Your task to perform on an android device: turn pop-ups on in chrome Image 0: 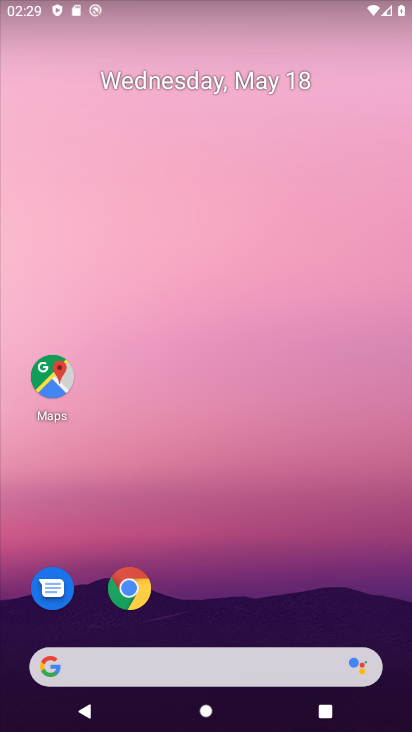
Step 0: press home button
Your task to perform on an android device: turn pop-ups on in chrome Image 1: 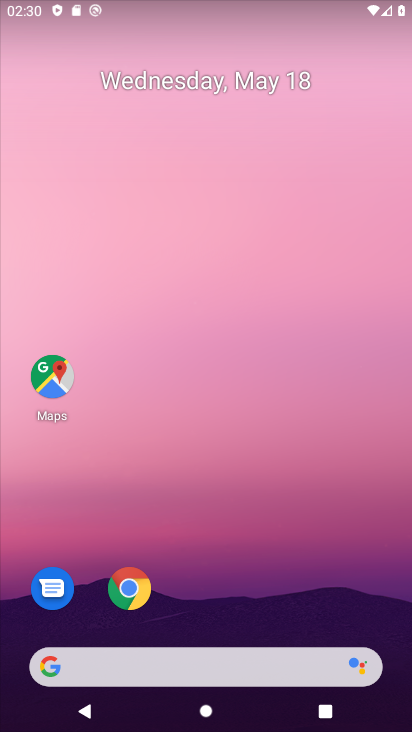
Step 1: click (119, 585)
Your task to perform on an android device: turn pop-ups on in chrome Image 2: 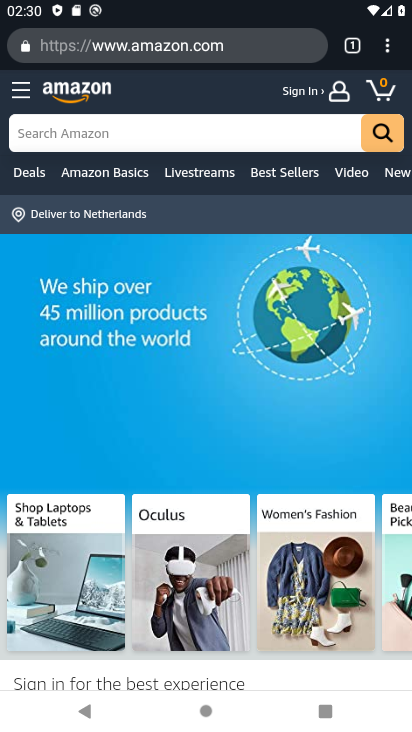
Step 2: click (385, 45)
Your task to perform on an android device: turn pop-ups on in chrome Image 3: 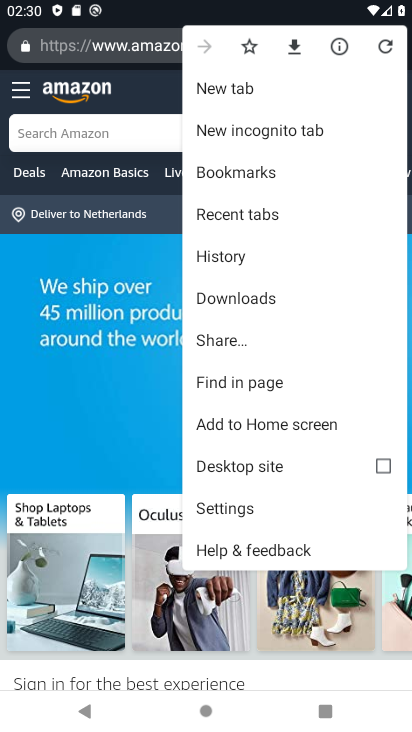
Step 3: click (209, 514)
Your task to perform on an android device: turn pop-ups on in chrome Image 4: 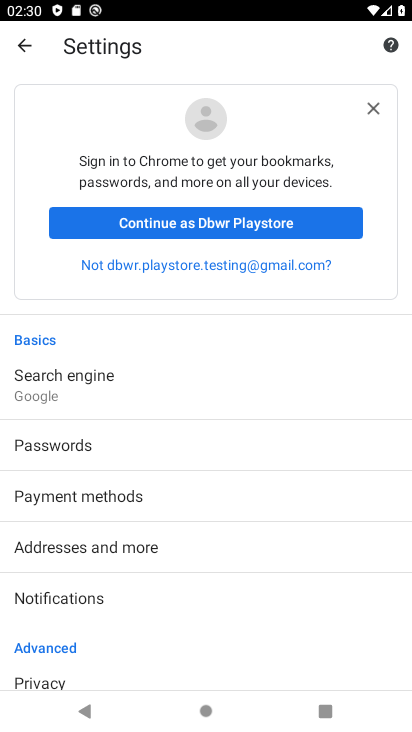
Step 4: drag from (1, 534) to (132, 140)
Your task to perform on an android device: turn pop-ups on in chrome Image 5: 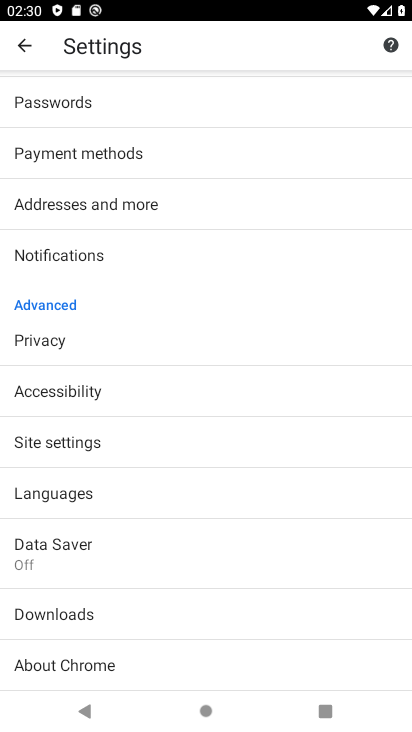
Step 5: drag from (3, 644) to (184, 197)
Your task to perform on an android device: turn pop-ups on in chrome Image 6: 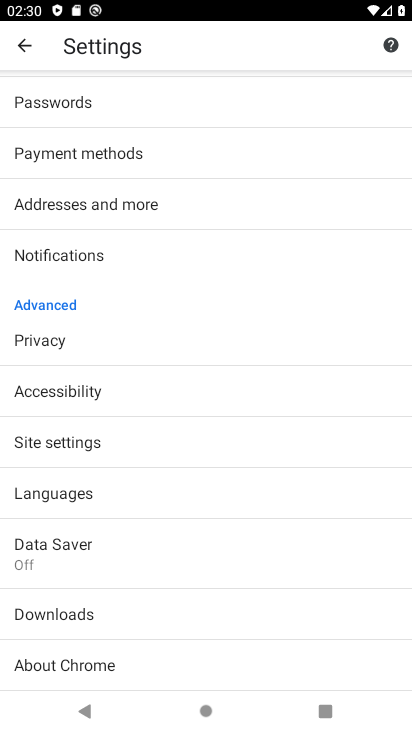
Step 6: click (84, 442)
Your task to perform on an android device: turn pop-ups on in chrome Image 7: 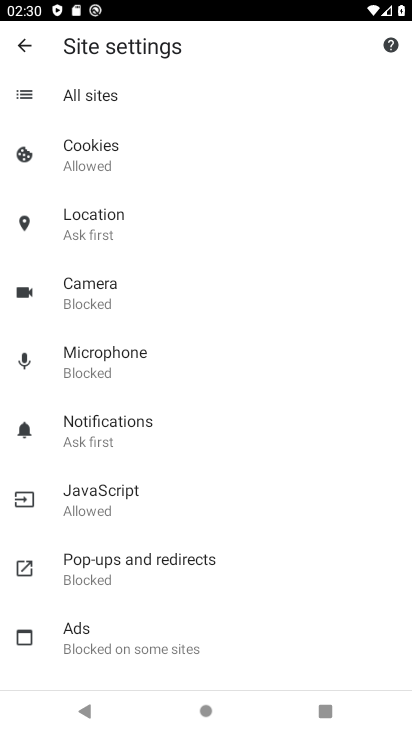
Step 7: click (69, 562)
Your task to perform on an android device: turn pop-ups on in chrome Image 8: 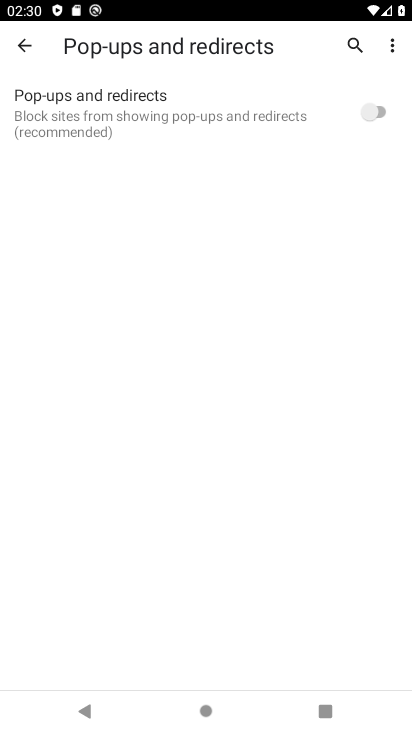
Step 8: click (364, 117)
Your task to perform on an android device: turn pop-ups on in chrome Image 9: 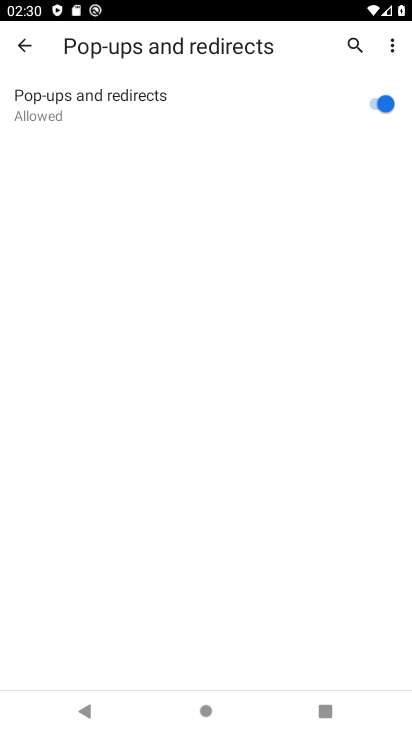
Step 9: task complete